Your task to perform on an android device: Open Reddit.com Image 0: 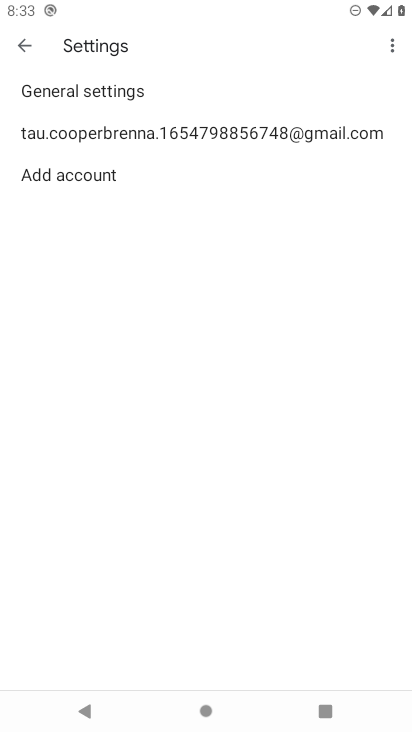
Step 0: press home button
Your task to perform on an android device: Open Reddit.com Image 1: 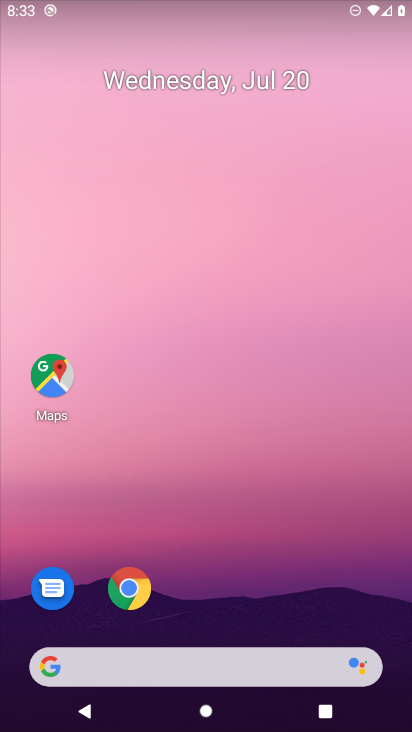
Step 1: click (109, 669)
Your task to perform on an android device: Open Reddit.com Image 2: 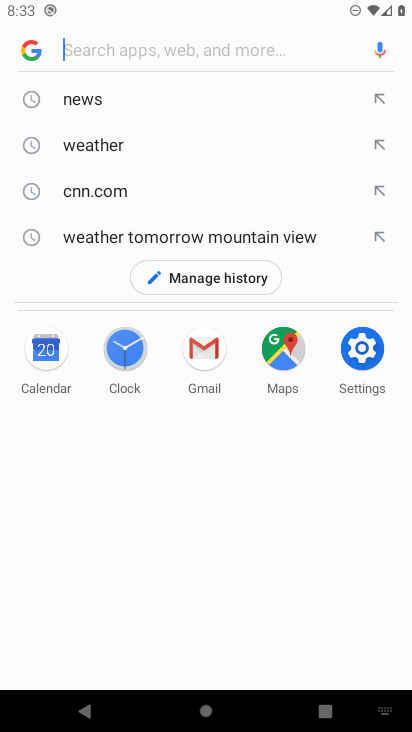
Step 2: type "Reddit.com"
Your task to perform on an android device: Open Reddit.com Image 3: 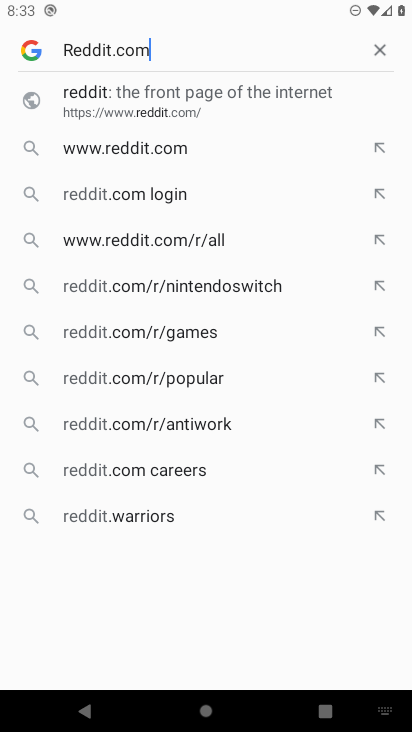
Step 3: type ""
Your task to perform on an android device: Open Reddit.com Image 4: 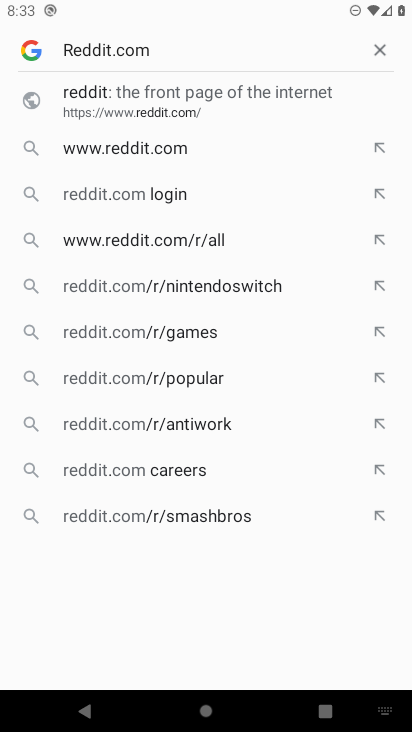
Step 4: click (217, 148)
Your task to perform on an android device: Open Reddit.com Image 5: 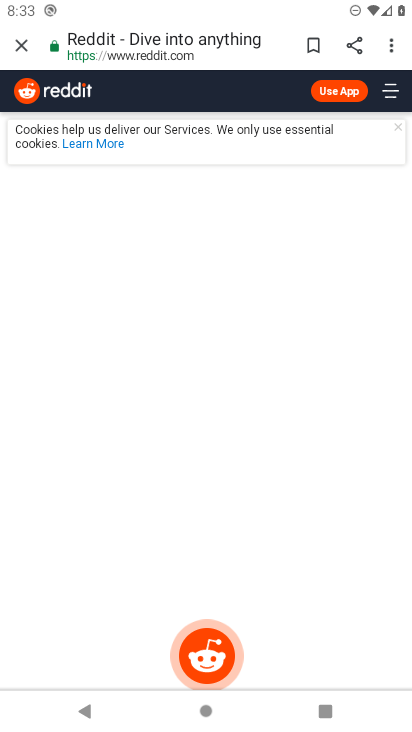
Step 5: task complete